Your task to perform on an android device: read, delete, or share a saved page in the chrome app Image 0: 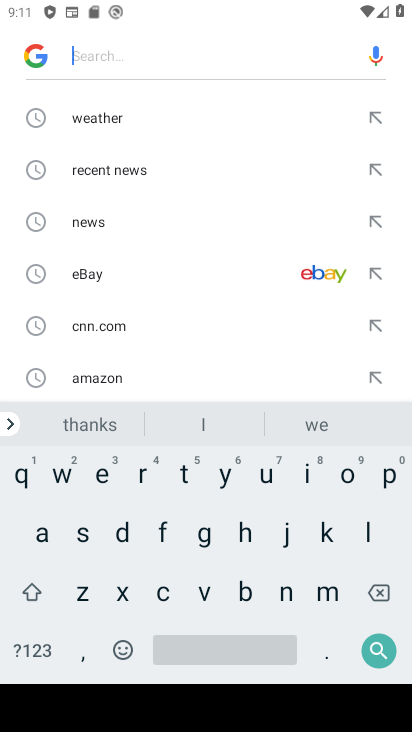
Step 0: press home button
Your task to perform on an android device: read, delete, or share a saved page in the chrome app Image 1: 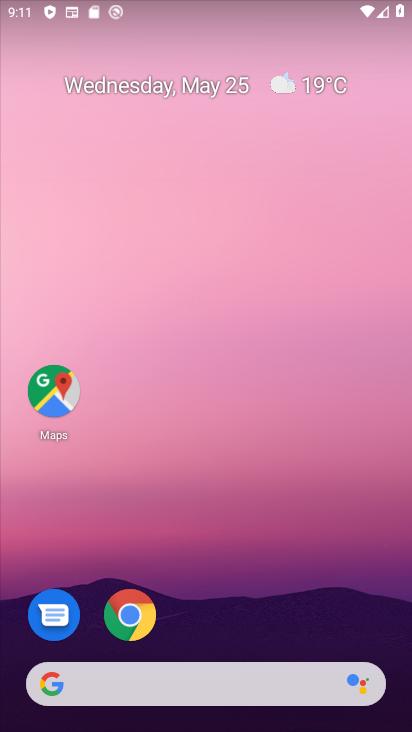
Step 1: drag from (218, 700) to (187, 155)
Your task to perform on an android device: read, delete, or share a saved page in the chrome app Image 2: 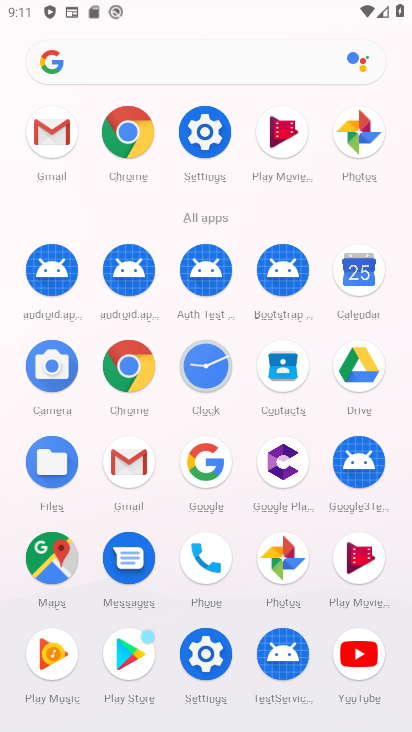
Step 2: click (126, 136)
Your task to perform on an android device: read, delete, or share a saved page in the chrome app Image 3: 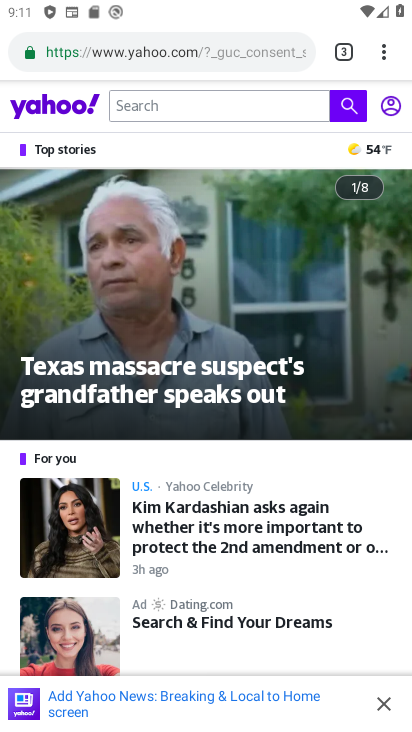
Step 3: click (380, 49)
Your task to perform on an android device: read, delete, or share a saved page in the chrome app Image 4: 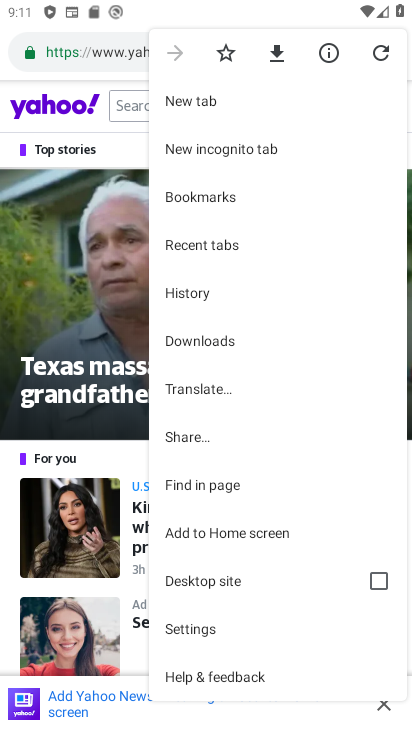
Step 4: click (202, 435)
Your task to perform on an android device: read, delete, or share a saved page in the chrome app Image 5: 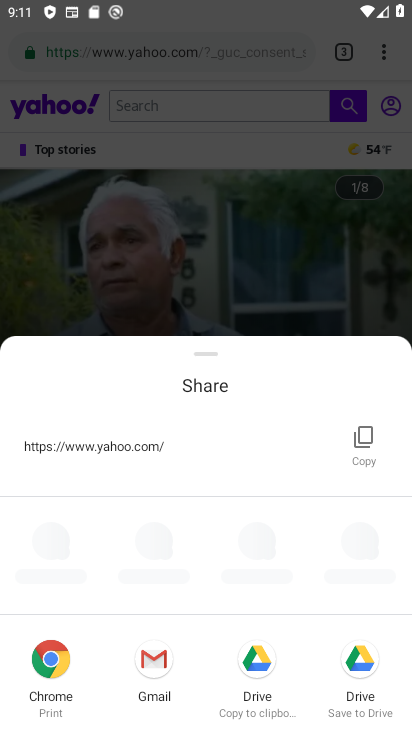
Step 5: task complete